Your task to perform on an android device: toggle pop-ups in chrome Image 0: 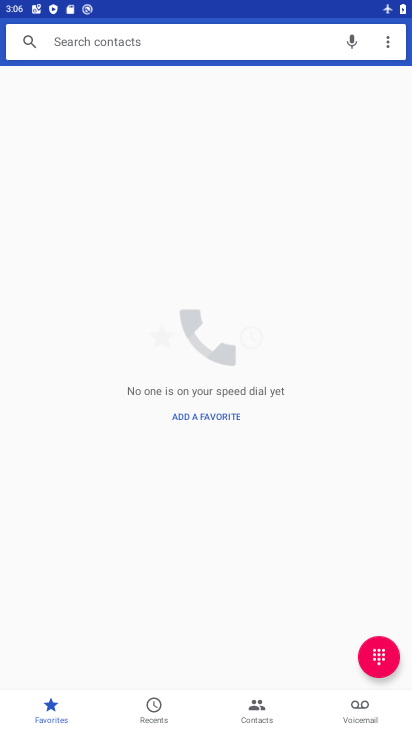
Step 0: press home button
Your task to perform on an android device: toggle pop-ups in chrome Image 1: 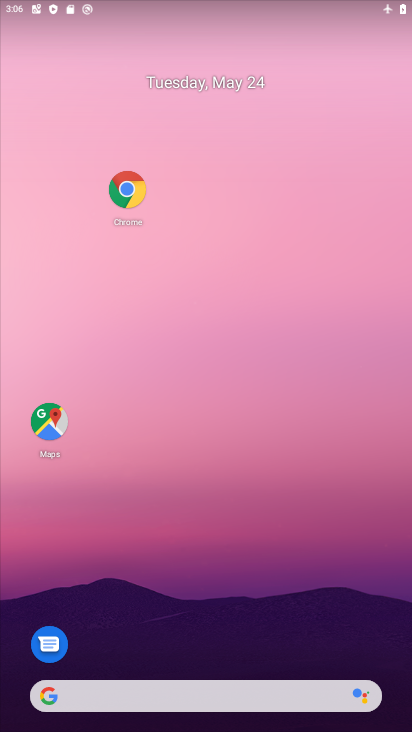
Step 1: click (125, 189)
Your task to perform on an android device: toggle pop-ups in chrome Image 2: 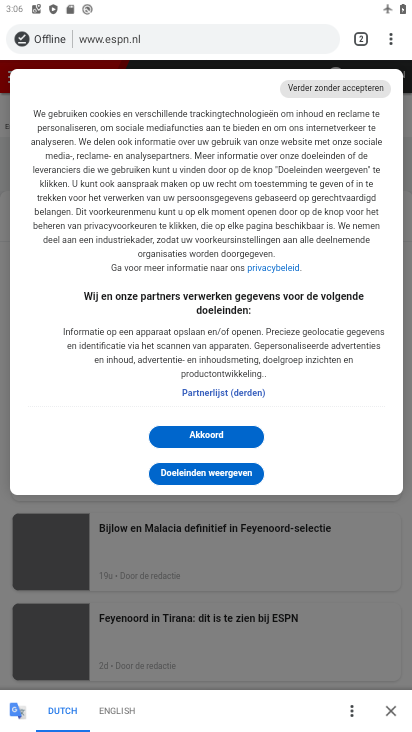
Step 2: click (385, 36)
Your task to perform on an android device: toggle pop-ups in chrome Image 3: 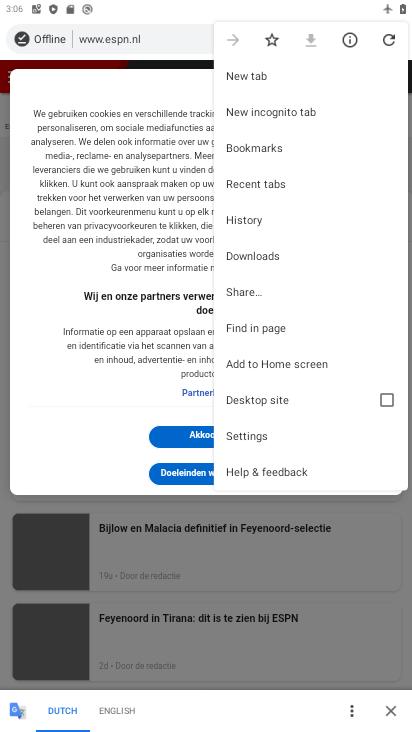
Step 3: click (277, 441)
Your task to perform on an android device: toggle pop-ups in chrome Image 4: 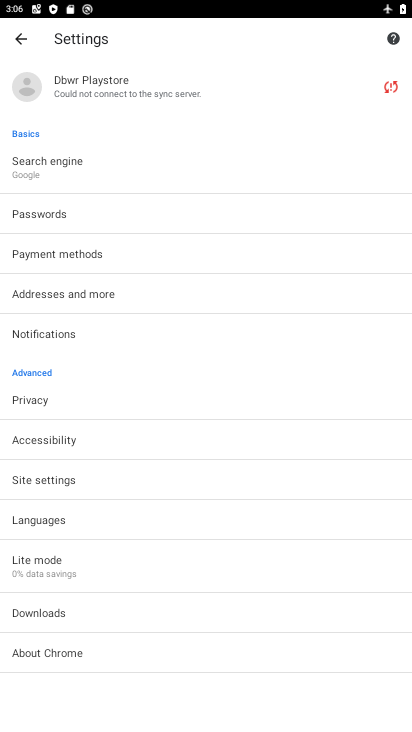
Step 4: click (64, 475)
Your task to perform on an android device: toggle pop-ups in chrome Image 5: 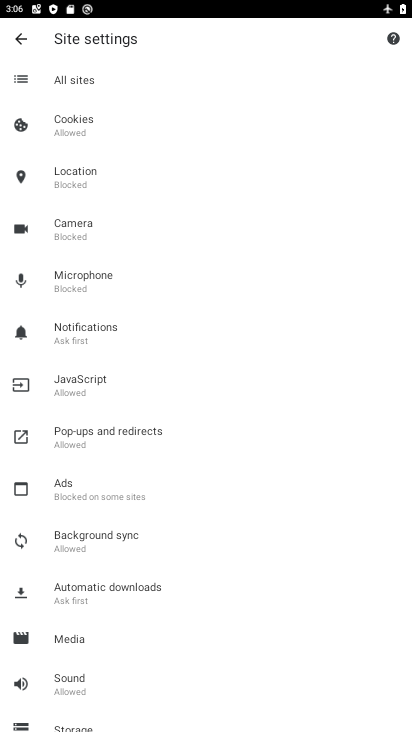
Step 5: click (93, 443)
Your task to perform on an android device: toggle pop-ups in chrome Image 6: 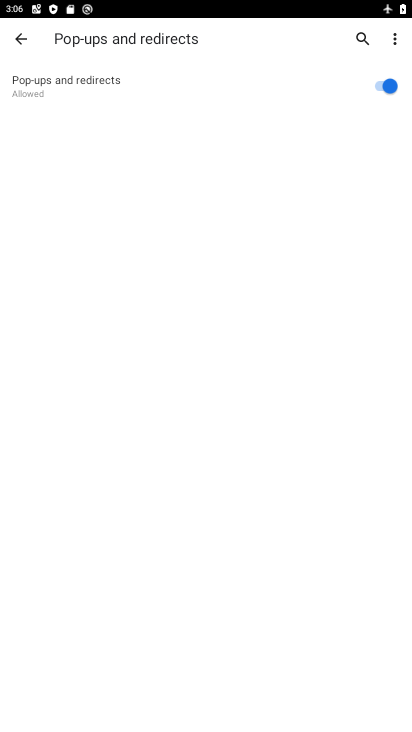
Step 6: click (392, 98)
Your task to perform on an android device: toggle pop-ups in chrome Image 7: 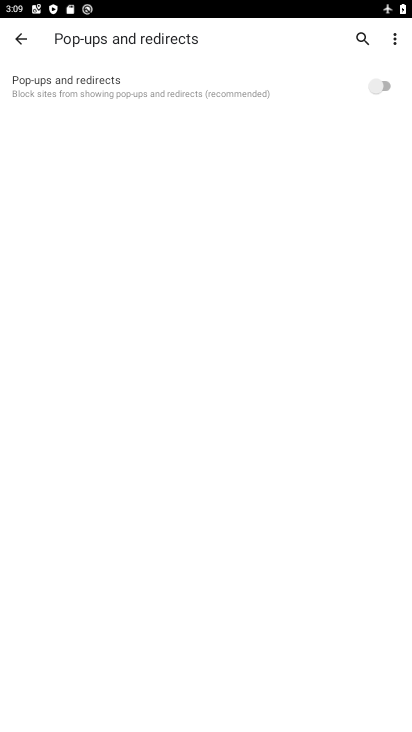
Step 7: task complete